Your task to perform on an android device: Check the weather Image 0: 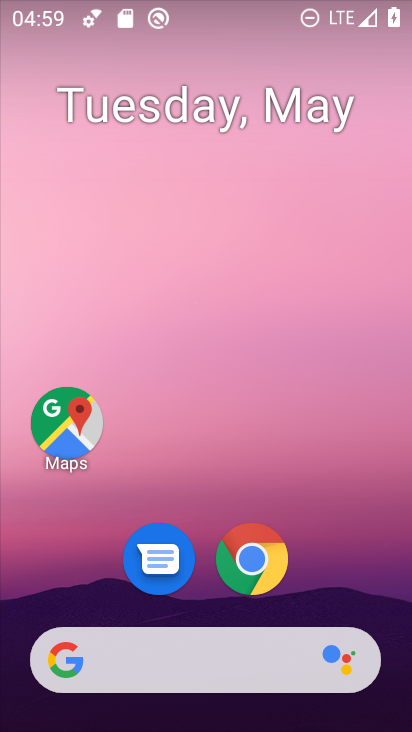
Step 0: drag from (237, 706) to (237, 56)
Your task to perform on an android device: Check the weather Image 1: 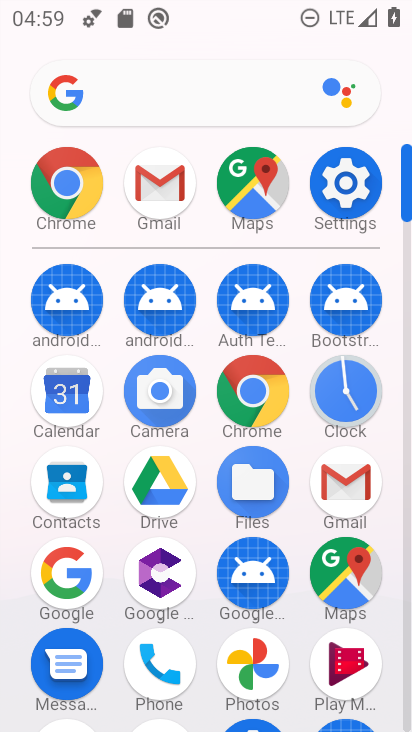
Step 1: click (66, 576)
Your task to perform on an android device: Check the weather Image 2: 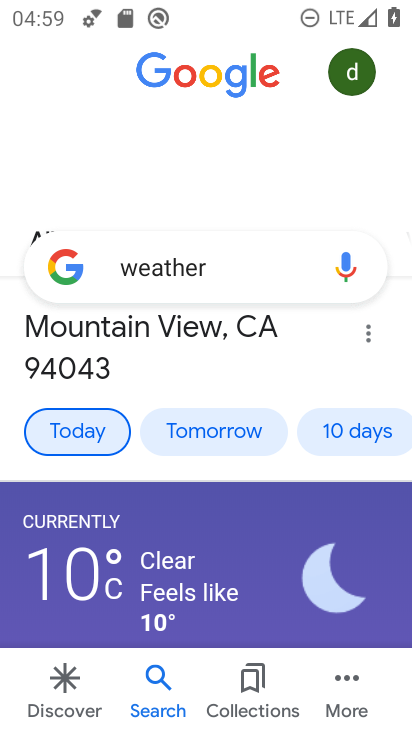
Step 2: click (84, 433)
Your task to perform on an android device: Check the weather Image 3: 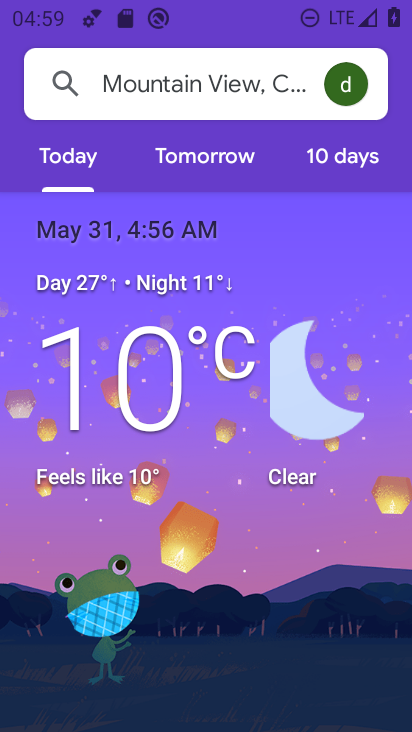
Step 3: task complete